Your task to perform on an android device: Go to display settings Image 0: 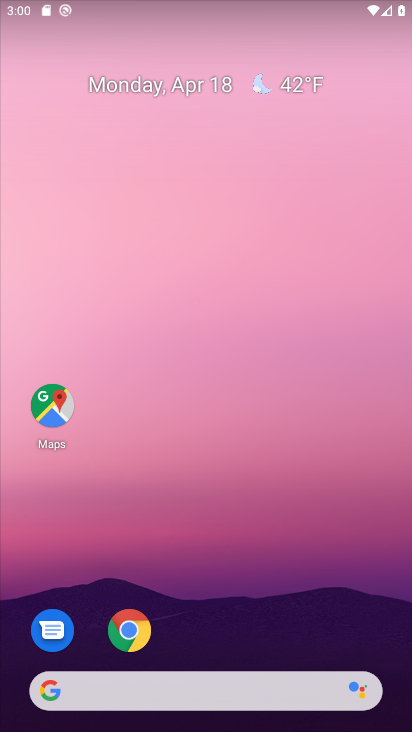
Step 0: drag from (229, 508) to (243, 135)
Your task to perform on an android device: Go to display settings Image 1: 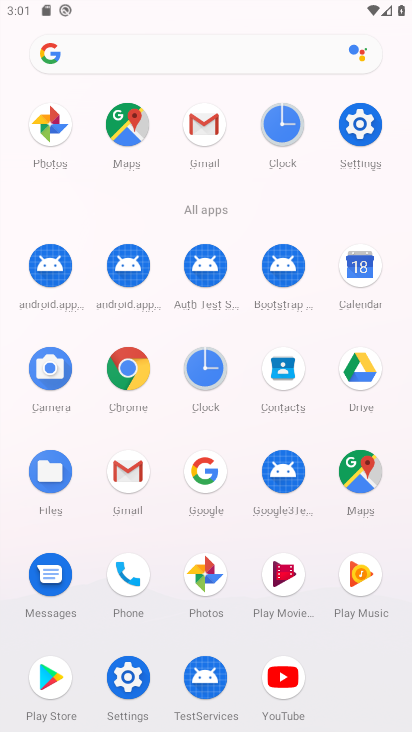
Step 1: click (356, 123)
Your task to perform on an android device: Go to display settings Image 2: 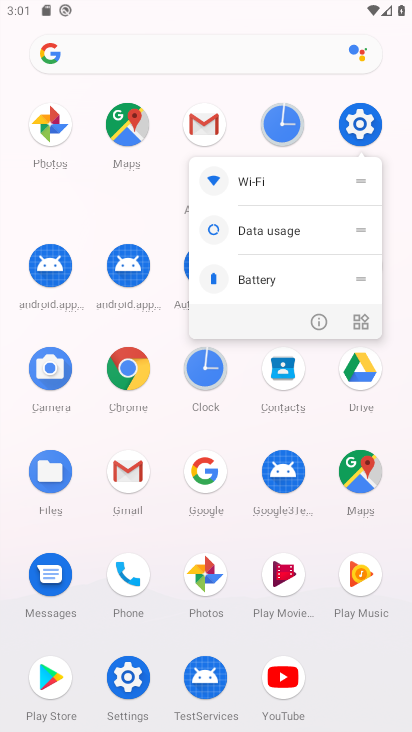
Step 2: click (359, 127)
Your task to perform on an android device: Go to display settings Image 3: 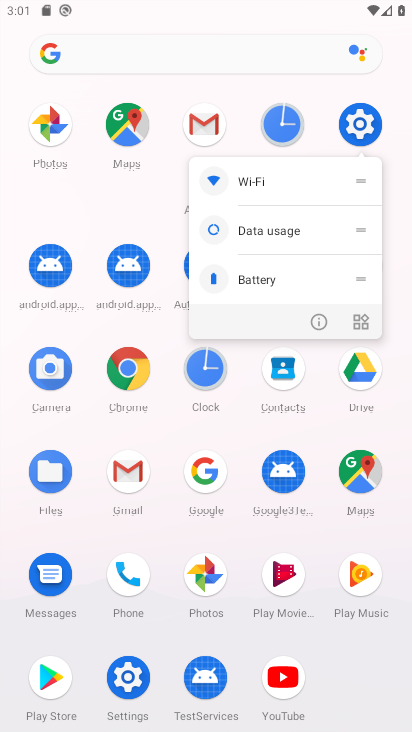
Step 3: click (358, 128)
Your task to perform on an android device: Go to display settings Image 4: 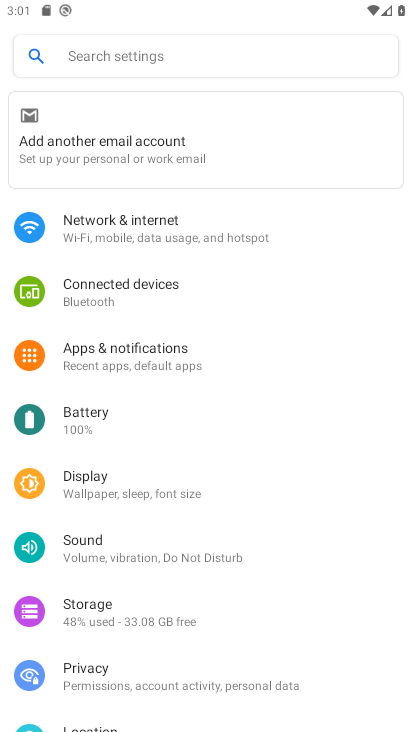
Step 4: click (123, 478)
Your task to perform on an android device: Go to display settings Image 5: 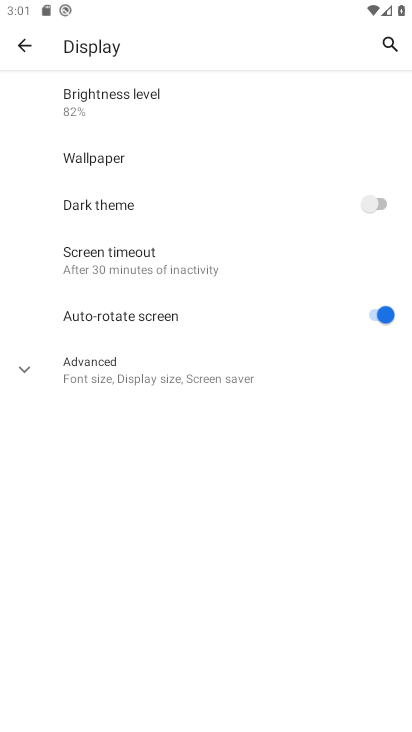
Step 5: task complete